Your task to perform on an android device: Open Google Chrome and open the bookmarks view Image 0: 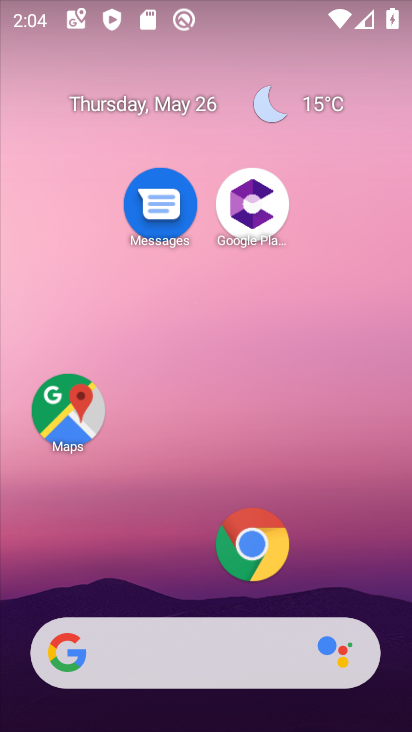
Step 0: click (239, 564)
Your task to perform on an android device: Open Google Chrome and open the bookmarks view Image 1: 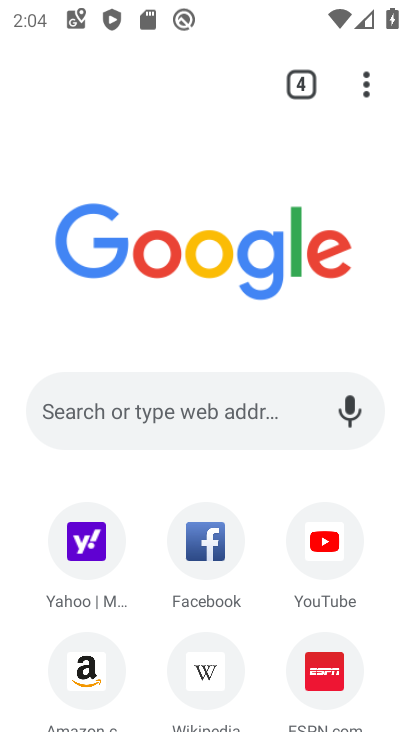
Step 1: click (379, 84)
Your task to perform on an android device: Open Google Chrome and open the bookmarks view Image 2: 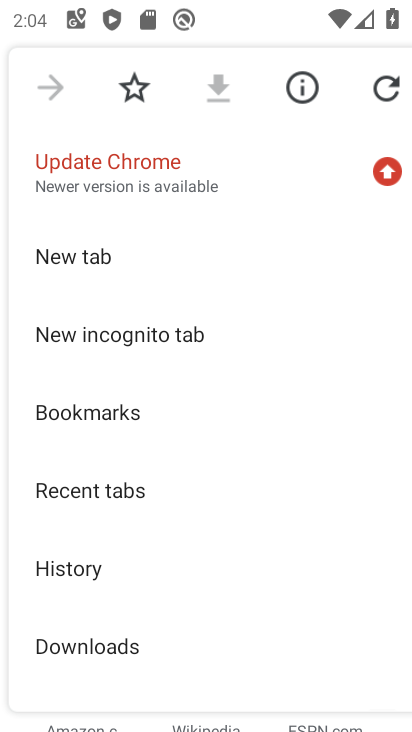
Step 2: click (148, 426)
Your task to perform on an android device: Open Google Chrome and open the bookmarks view Image 3: 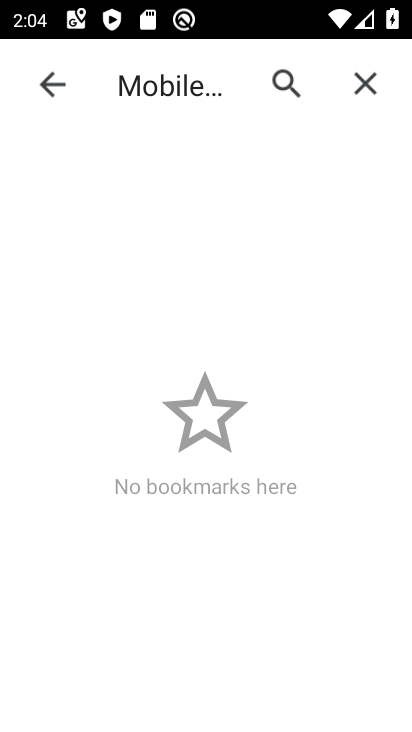
Step 3: task complete